Your task to perform on an android device: Open sound settings Image 0: 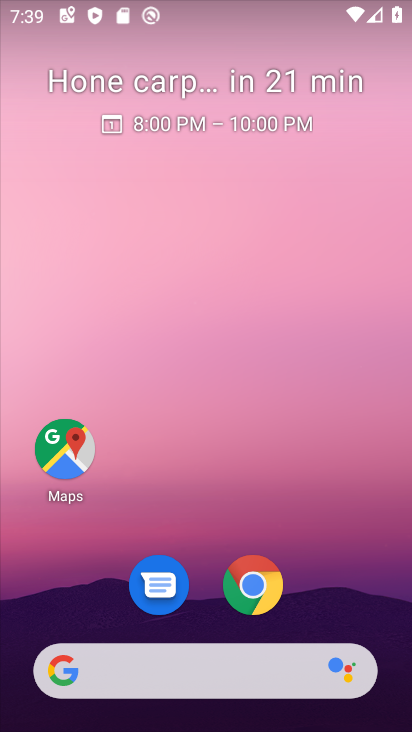
Step 0: drag from (353, 562) to (320, 102)
Your task to perform on an android device: Open sound settings Image 1: 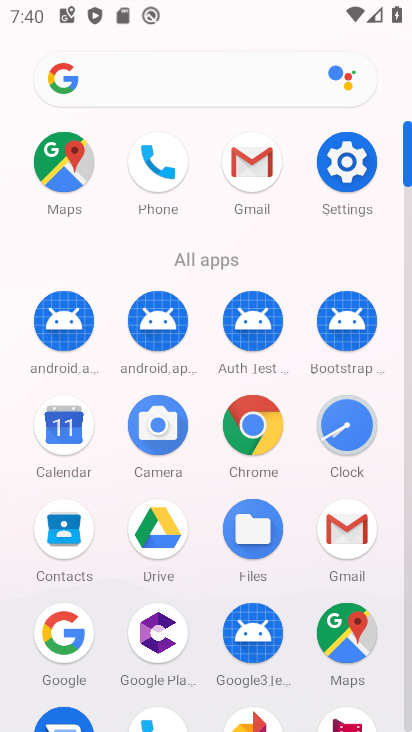
Step 1: click (344, 166)
Your task to perform on an android device: Open sound settings Image 2: 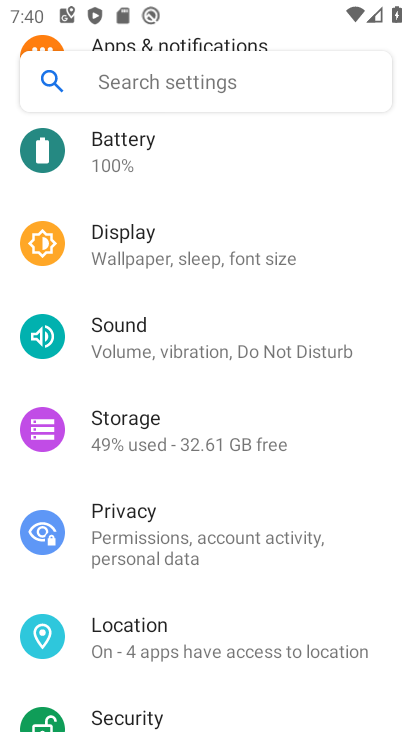
Step 2: click (230, 337)
Your task to perform on an android device: Open sound settings Image 3: 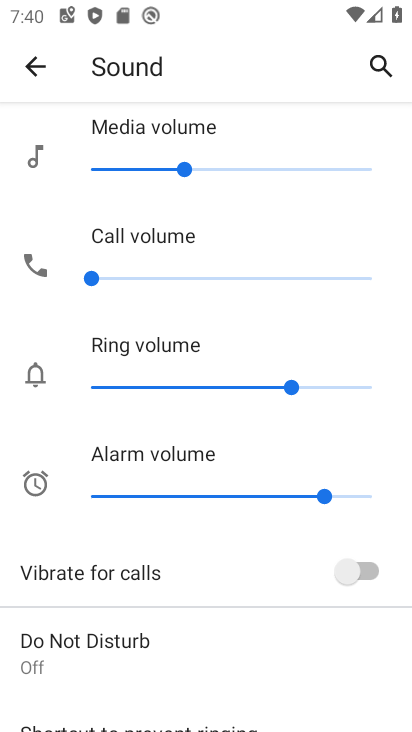
Step 3: task complete